Your task to perform on an android device: check google app version Image 0: 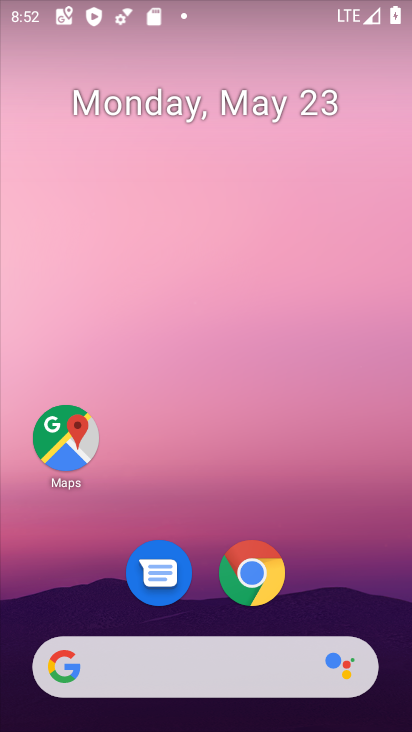
Step 0: click (234, 662)
Your task to perform on an android device: check google app version Image 1: 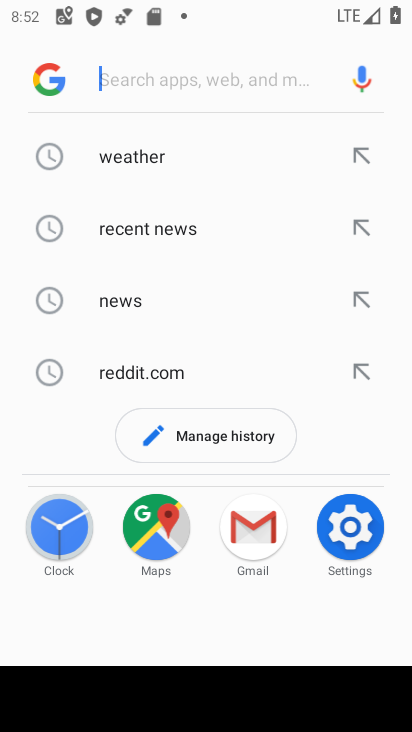
Step 1: click (47, 83)
Your task to perform on an android device: check google app version Image 2: 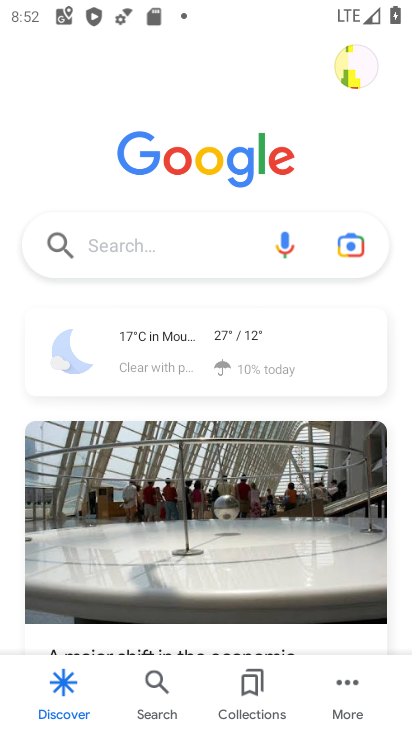
Step 2: click (347, 685)
Your task to perform on an android device: check google app version Image 3: 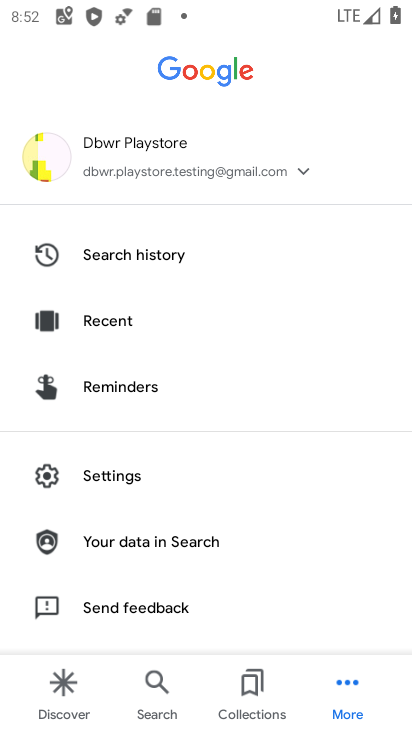
Step 3: click (152, 472)
Your task to perform on an android device: check google app version Image 4: 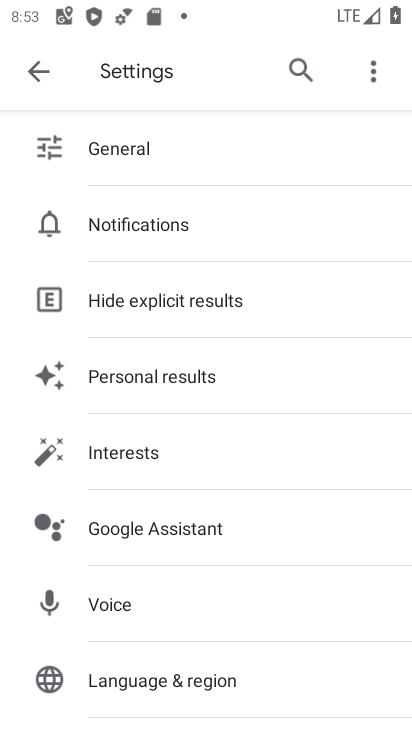
Step 4: drag from (204, 633) to (240, 394)
Your task to perform on an android device: check google app version Image 5: 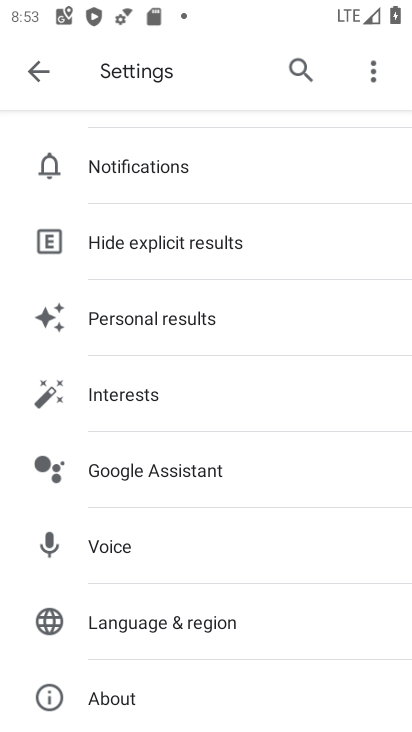
Step 5: click (119, 687)
Your task to perform on an android device: check google app version Image 6: 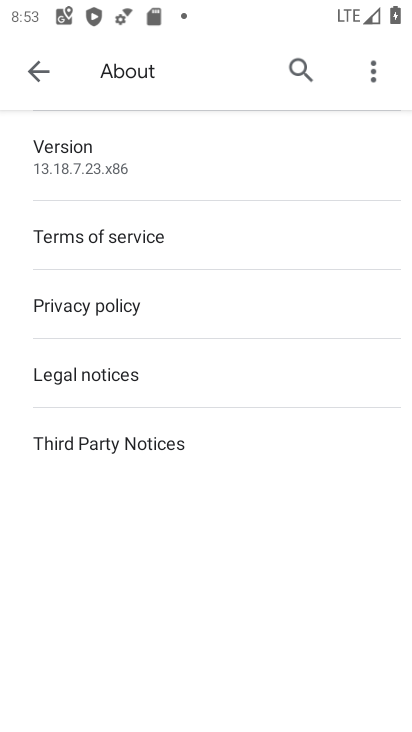
Step 6: task complete